Your task to perform on an android device: Show me popular videos on Youtube Image 0: 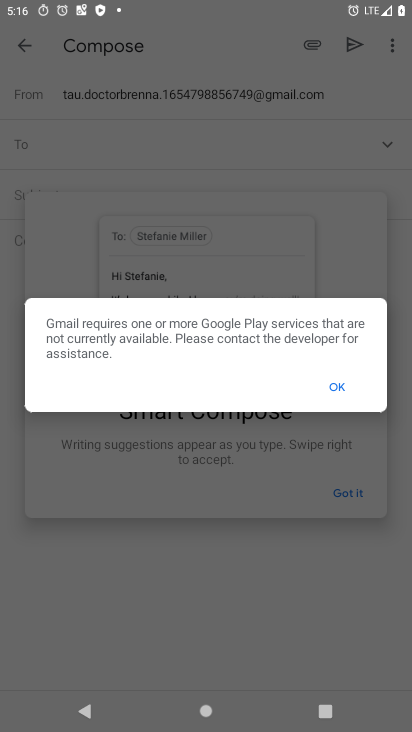
Step 0: press home button
Your task to perform on an android device: Show me popular videos on Youtube Image 1: 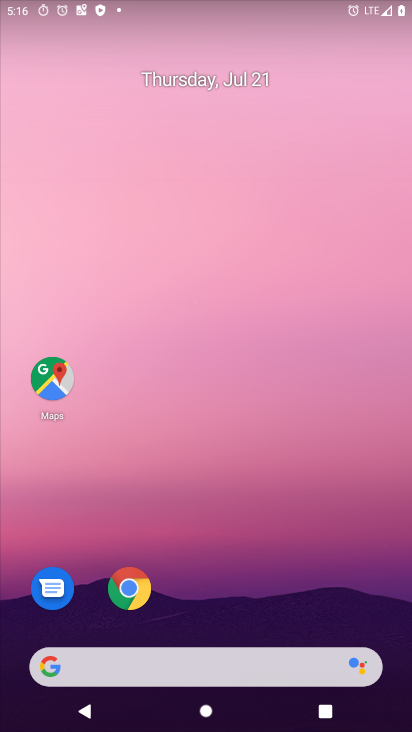
Step 1: drag from (275, 580) to (275, 83)
Your task to perform on an android device: Show me popular videos on Youtube Image 2: 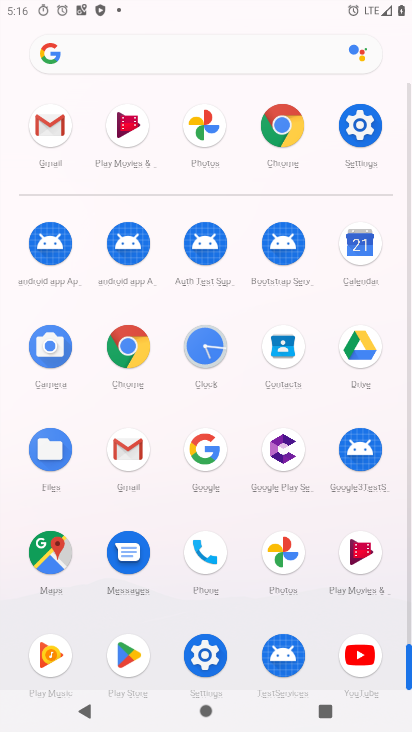
Step 2: click (351, 637)
Your task to perform on an android device: Show me popular videos on Youtube Image 3: 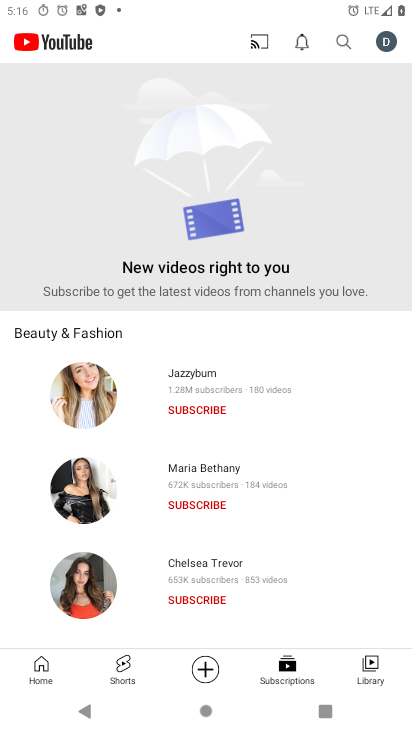
Step 3: click (345, 37)
Your task to perform on an android device: Show me popular videos on Youtube Image 4: 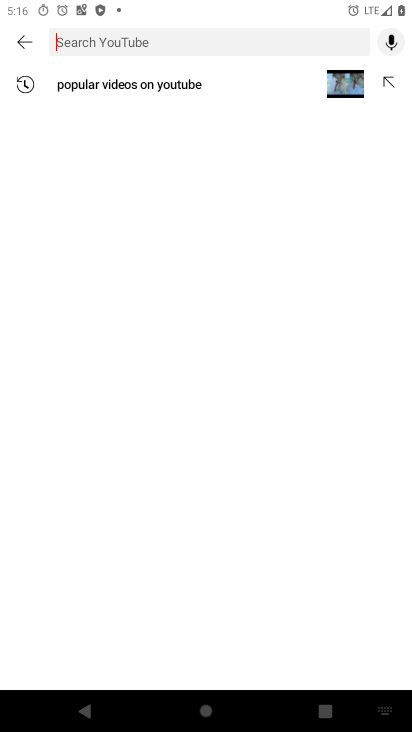
Step 4: click (153, 78)
Your task to perform on an android device: Show me popular videos on Youtube Image 5: 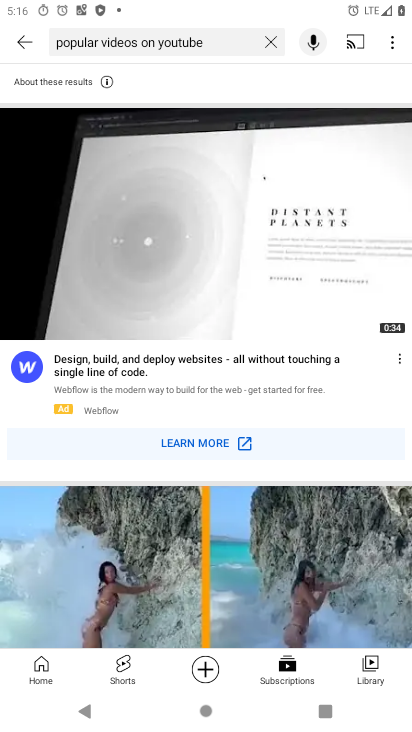
Step 5: task complete